Your task to perform on an android device: Is it going to rain tomorrow? Image 0: 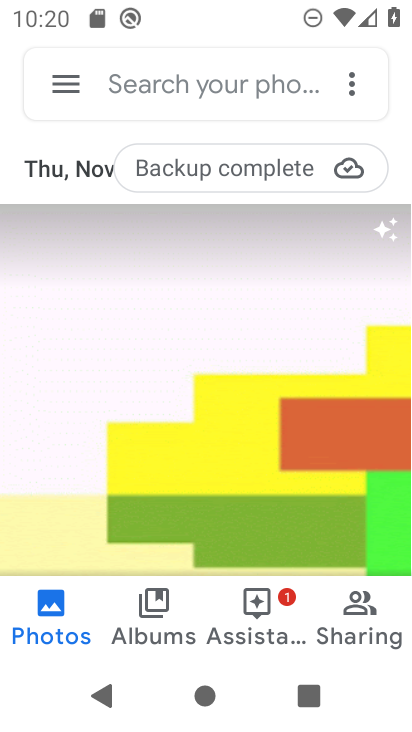
Step 0: press home button
Your task to perform on an android device: Is it going to rain tomorrow? Image 1: 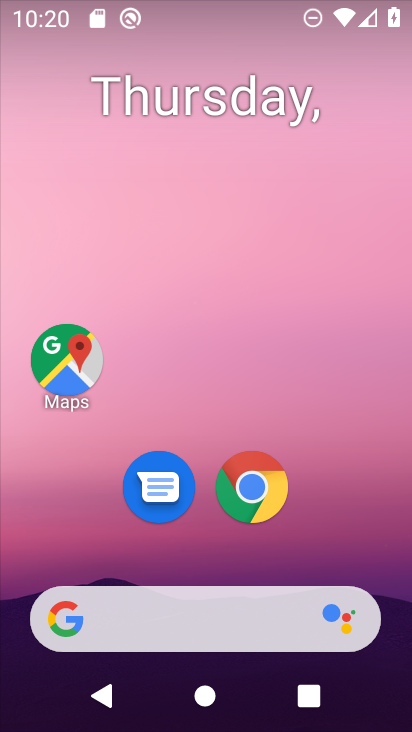
Step 1: click (235, 496)
Your task to perform on an android device: Is it going to rain tomorrow? Image 2: 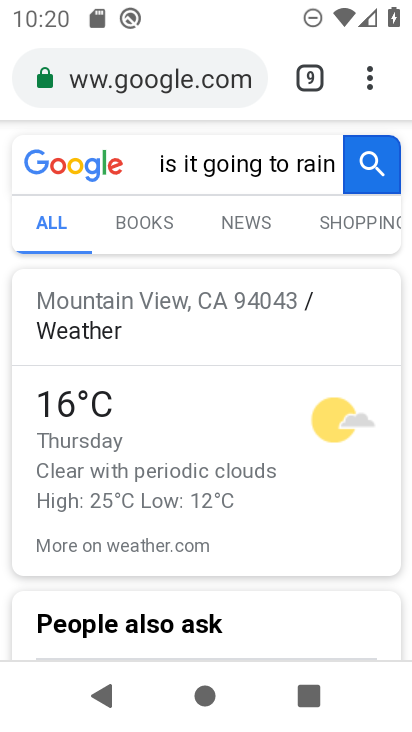
Step 2: click (303, 75)
Your task to perform on an android device: Is it going to rain tomorrow? Image 3: 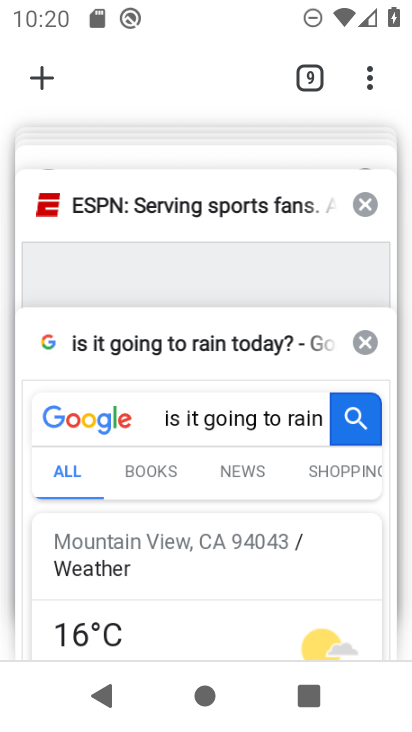
Step 3: click (39, 78)
Your task to perform on an android device: Is it going to rain tomorrow? Image 4: 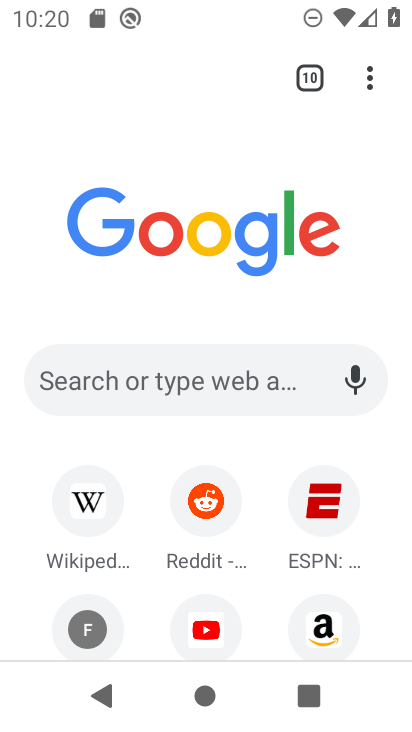
Step 4: type "Is it going to rain tomorrow?"
Your task to perform on an android device: Is it going to rain tomorrow? Image 5: 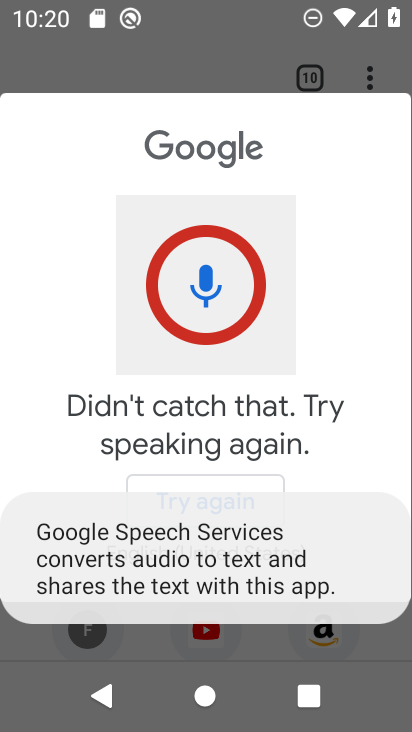
Step 5: click (257, 375)
Your task to perform on an android device: Is it going to rain tomorrow? Image 6: 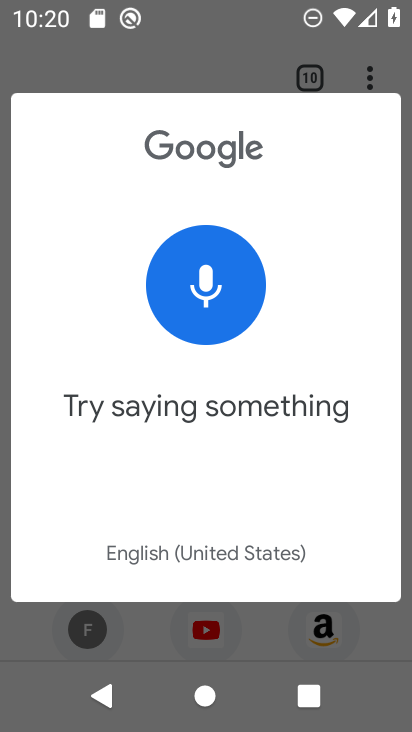
Step 6: click (211, 516)
Your task to perform on an android device: Is it going to rain tomorrow? Image 7: 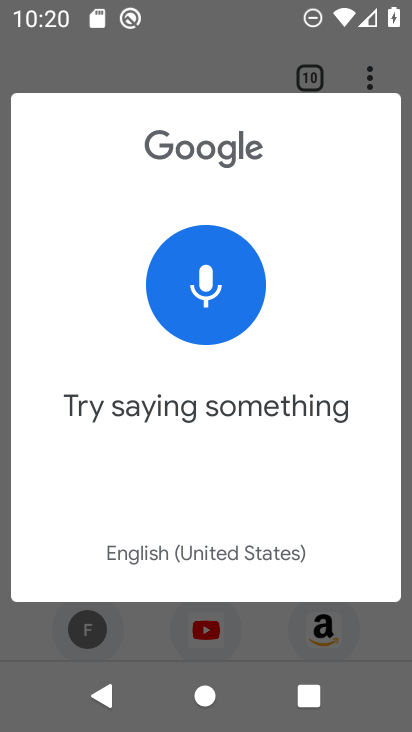
Step 7: click (151, 637)
Your task to perform on an android device: Is it going to rain tomorrow? Image 8: 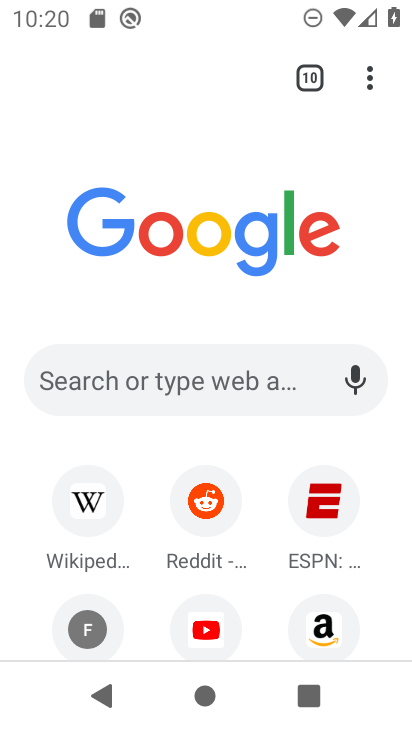
Step 8: click (198, 374)
Your task to perform on an android device: Is it going to rain tomorrow? Image 9: 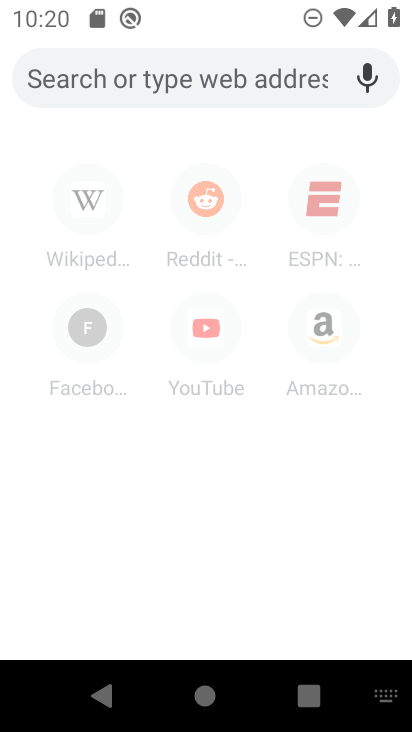
Step 9: type "Is it going to rain tomorrow?"
Your task to perform on an android device: Is it going to rain tomorrow? Image 10: 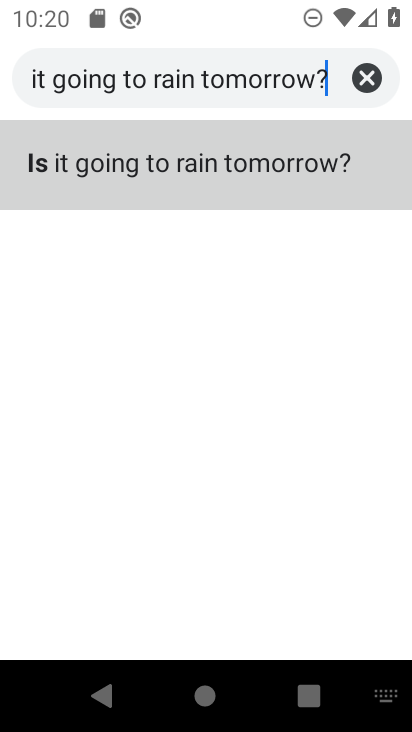
Step 10: click (184, 170)
Your task to perform on an android device: Is it going to rain tomorrow? Image 11: 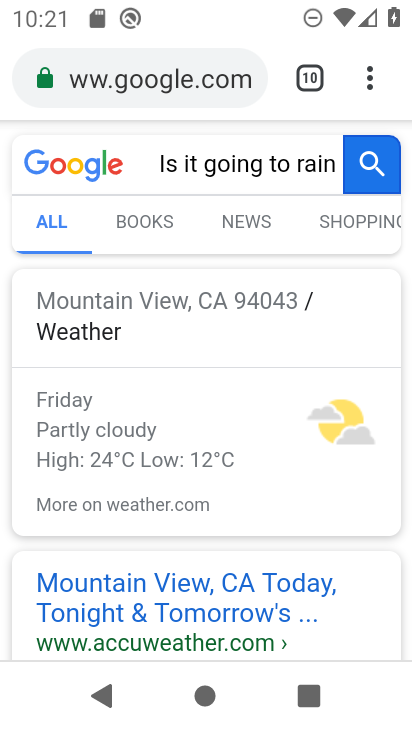
Step 11: task complete